Your task to perform on an android device: What's the weather going to be this weekend? Image 0: 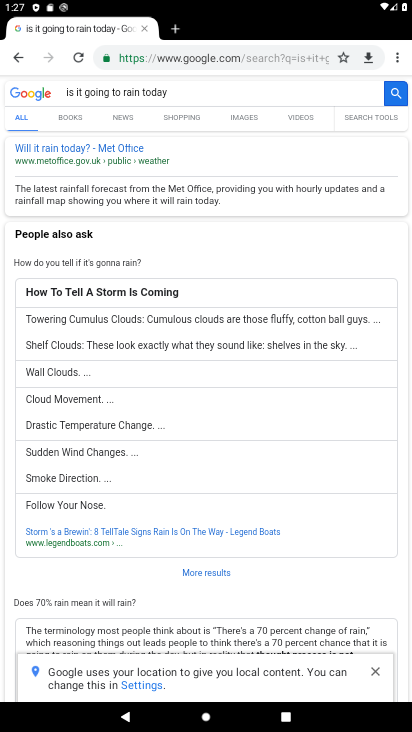
Step 0: press home button
Your task to perform on an android device: What's the weather going to be this weekend? Image 1: 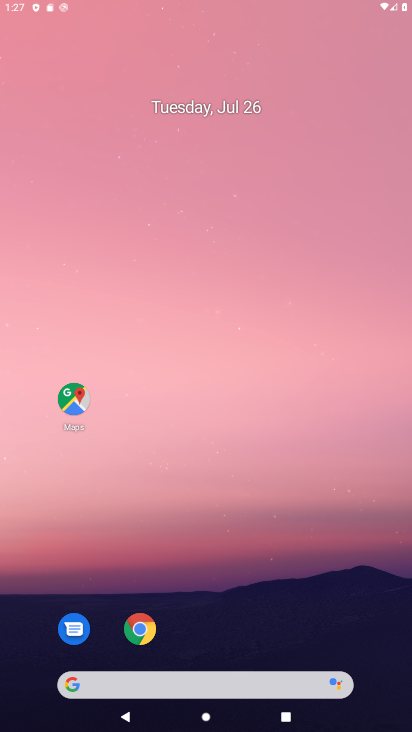
Step 1: drag from (315, 679) to (299, 1)
Your task to perform on an android device: What's the weather going to be this weekend? Image 2: 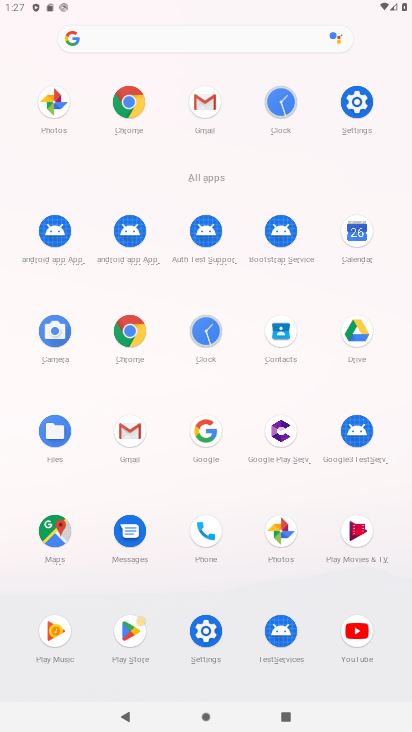
Step 2: click (216, 429)
Your task to perform on an android device: What's the weather going to be this weekend? Image 3: 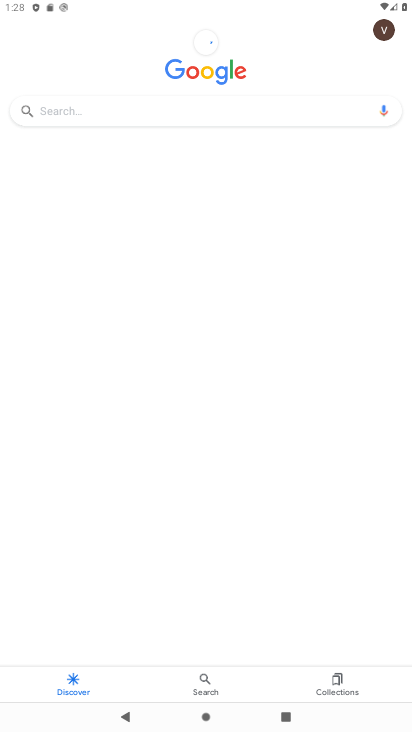
Step 3: click (276, 113)
Your task to perform on an android device: What's the weather going to be this weekend? Image 4: 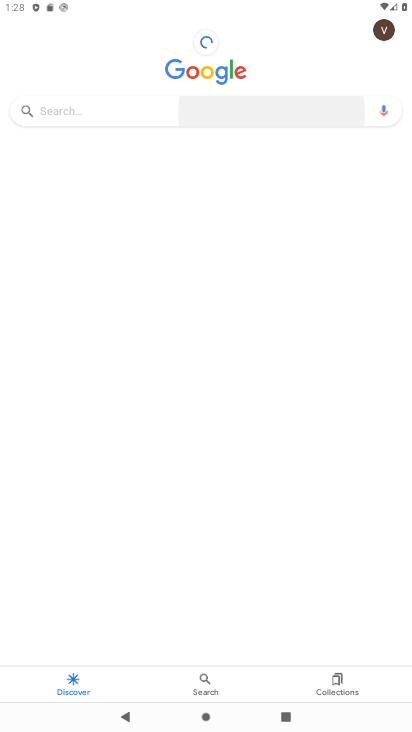
Step 4: click (276, 113)
Your task to perform on an android device: What's the weather going to be this weekend? Image 5: 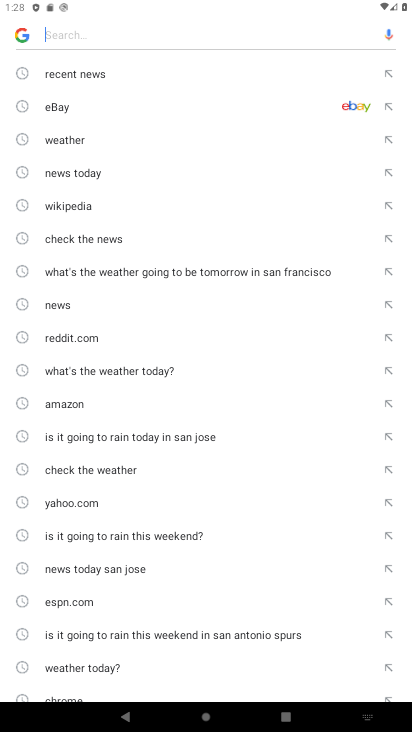
Step 5: click (155, 532)
Your task to perform on an android device: What's the weather going to be this weekend? Image 6: 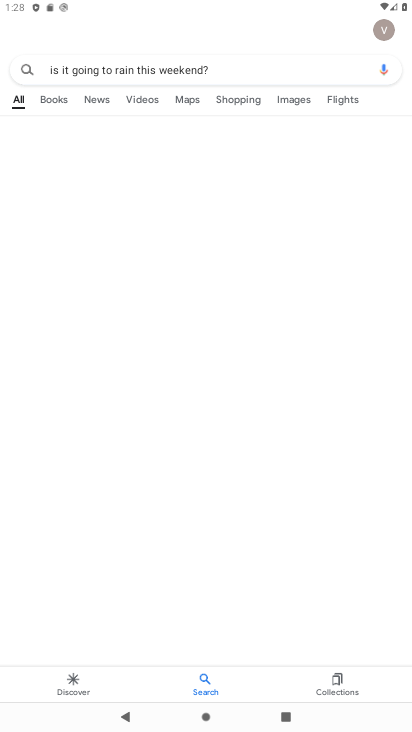
Step 6: click (120, 69)
Your task to perform on an android device: What's the weather going to be this weekend? Image 7: 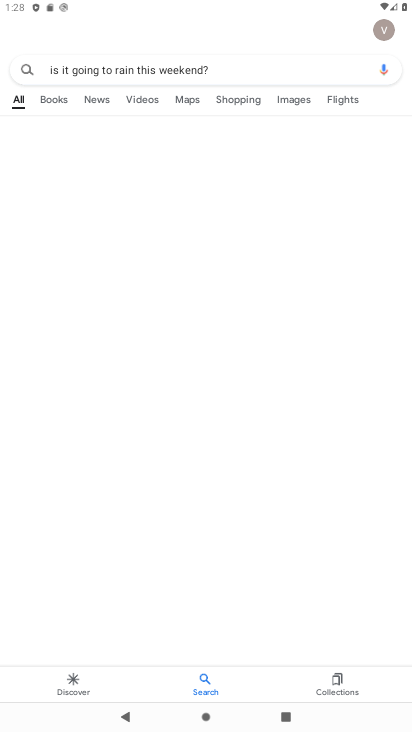
Step 7: click (120, 69)
Your task to perform on an android device: What's the weather going to be this weekend? Image 8: 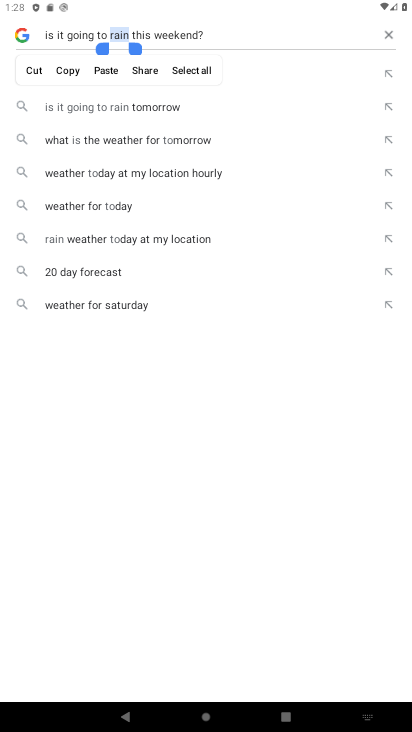
Step 8: click (316, 35)
Your task to perform on an android device: What's the weather going to be this weekend? Image 9: 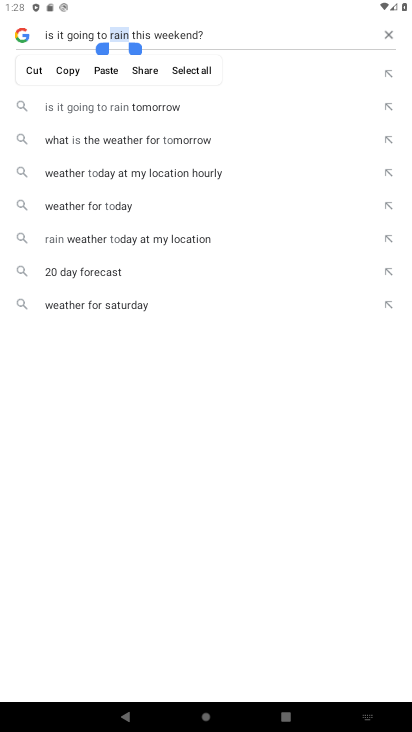
Step 9: click (316, 35)
Your task to perform on an android device: What's the weather going to be this weekend? Image 10: 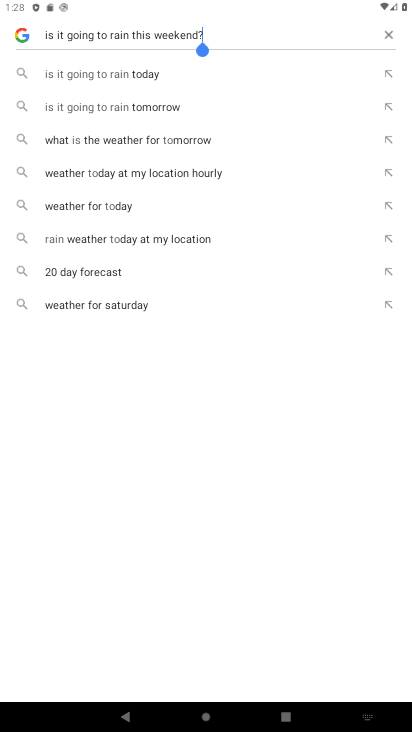
Step 10: click (390, 34)
Your task to perform on an android device: What's the weather going to be this weekend? Image 11: 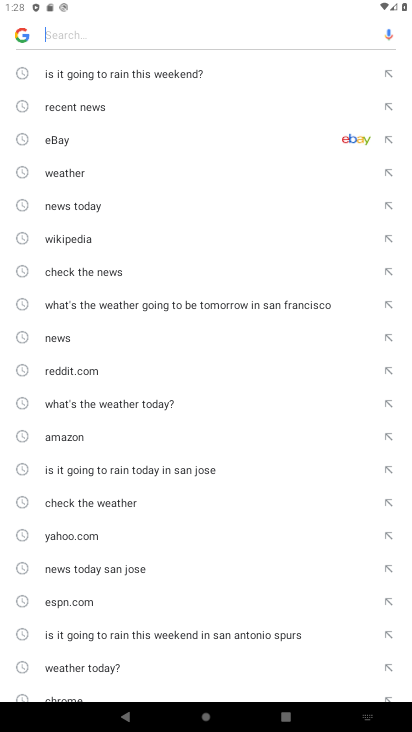
Step 11: type "weather going to be this weekend"
Your task to perform on an android device: What's the weather going to be this weekend? Image 12: 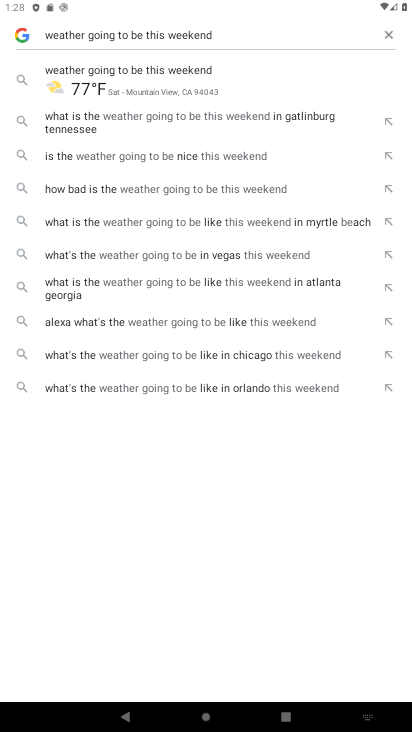
Step 12: click (166, 74)
Your task to perform on an android device: What's the weather going to be this weekend? Image 13: 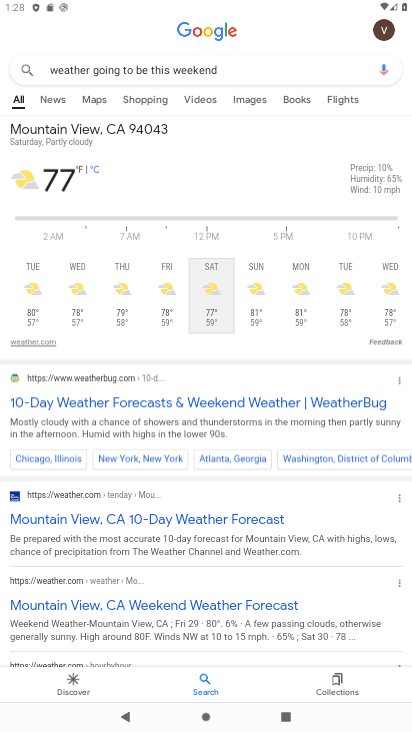
Step 13: task complete